Your task to perform on an android device: turn on bluetooth scan Image 0: 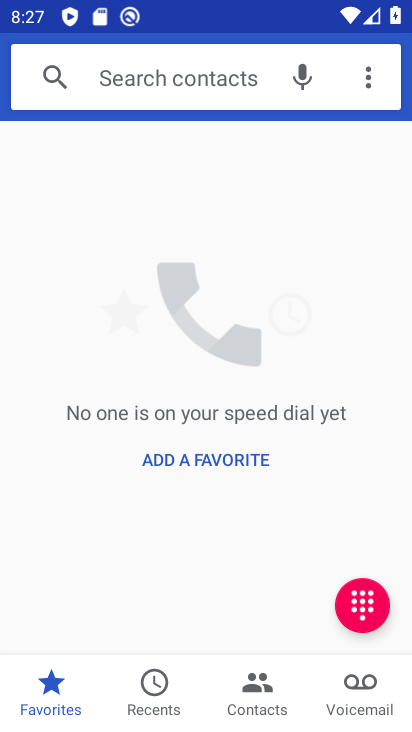
Step 0: press home button
Your task to perform on an android device: turn on bluetooth scan Image 1: 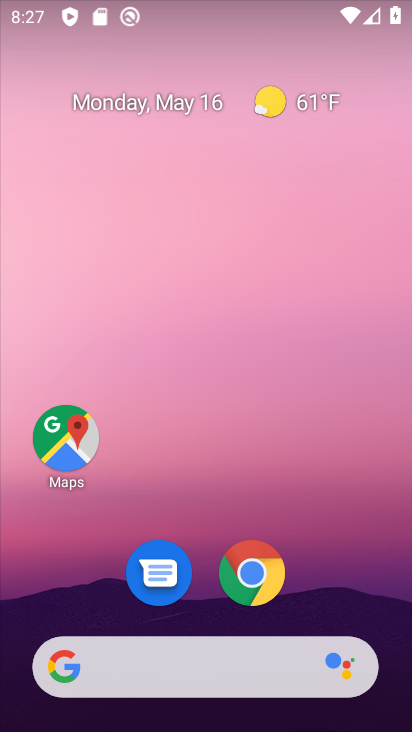
Step 1: drag from (218, 719) to (221, 123)
Your task to perform on an android device: turn on bluetooth scan Image 2: 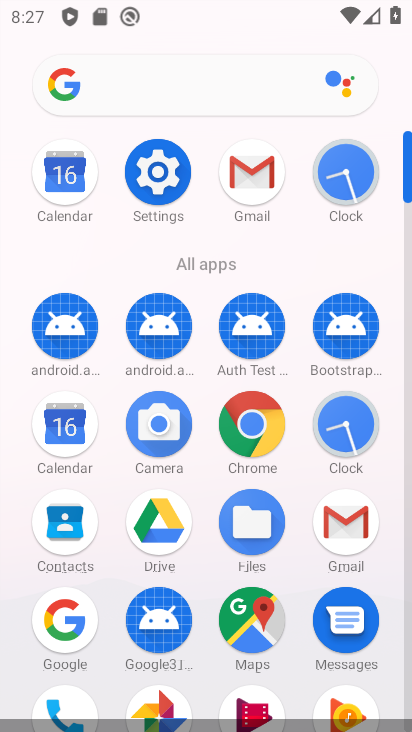
Step 2: click (156, 173)
Your task to perform on an android device: turn on bluetooth scan Image 3: 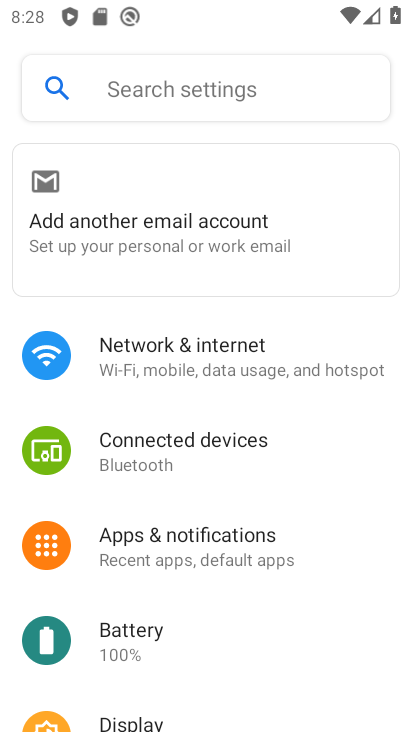
Step 3: drag from (210, 676) to (224, 290)
Your task to perform on an android device: turn on bluetooth scan Image 4: 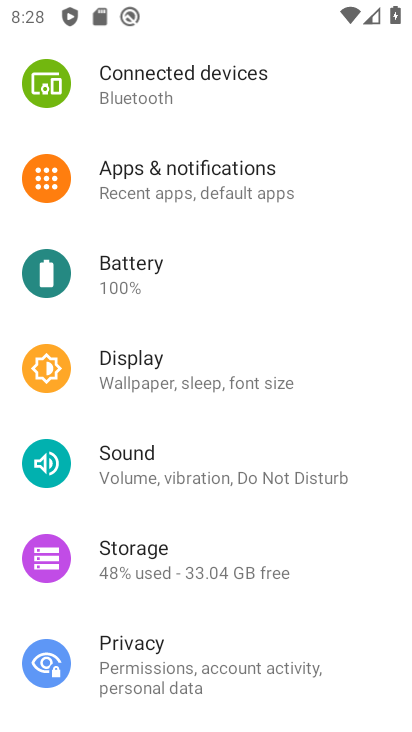
Step 4: drag from (149, 680) to (164, 351)
Your task to perform on an android device: turn on bluetooth scan Image 5: 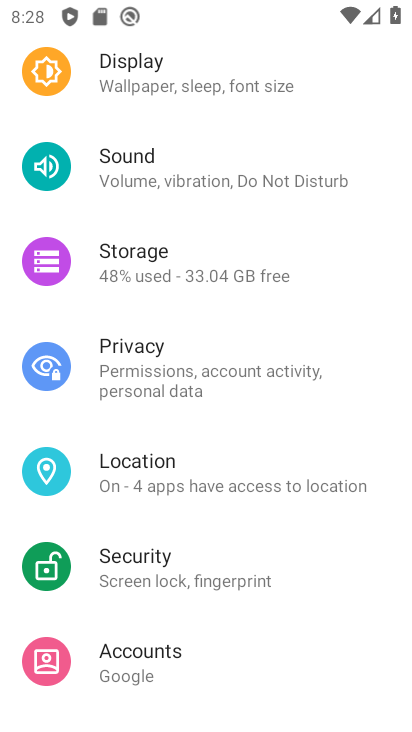
Step 5: click (149, 469)
Your task to perform on an android device: turn on bluetooth scan Image 6: 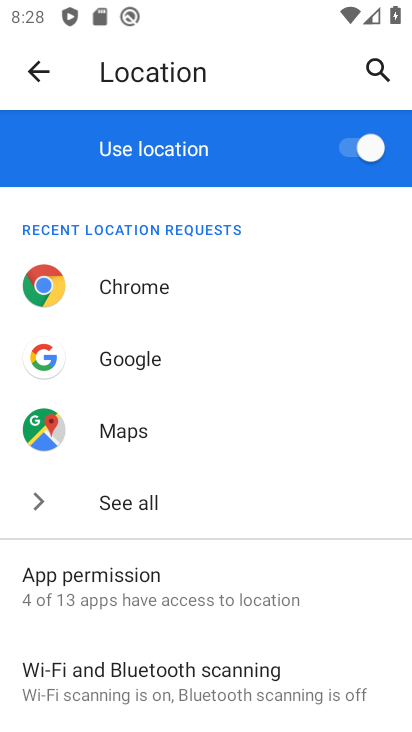
Step 6: click (179, 680)
Your task to perform on an android device: turn on bluetooth scan Image 7: 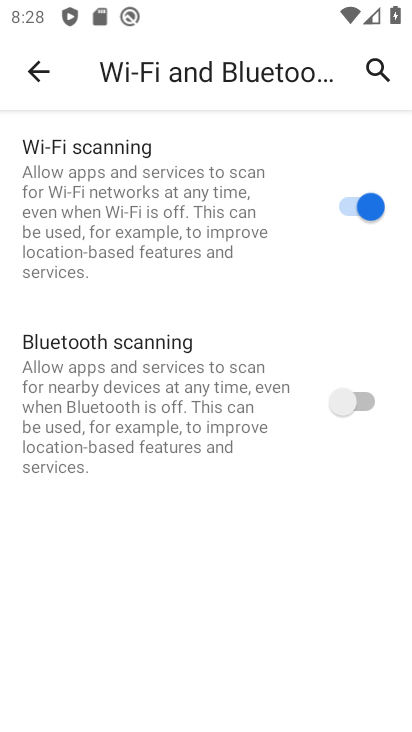
Step 7: click (363, 405)
Your task to perform on an android device: turn on bluetooth scan Image 8: 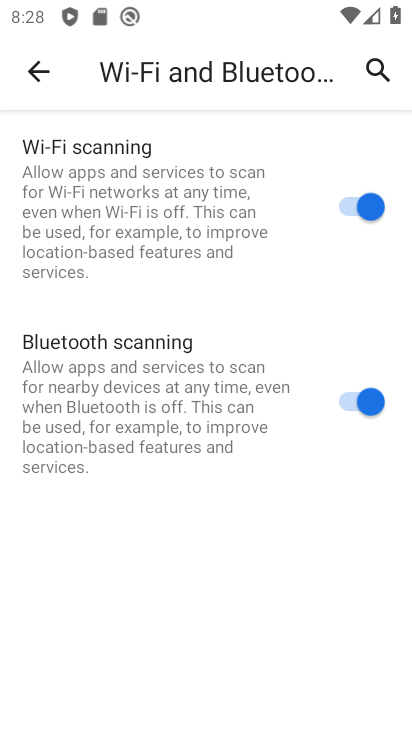
Step 8: task complete